Your task to perform on an android device: install app "Google Docs" Image 0: 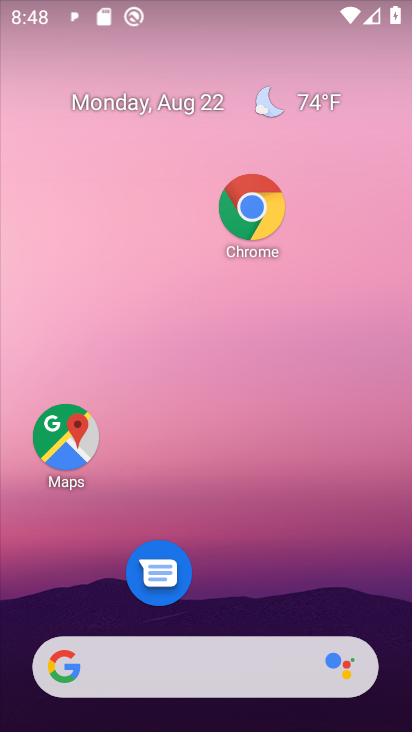
Step 0: drag from (216, 608) to (209, 69)
Your task to perform on an android device: install app "Google Docs" Image 1: 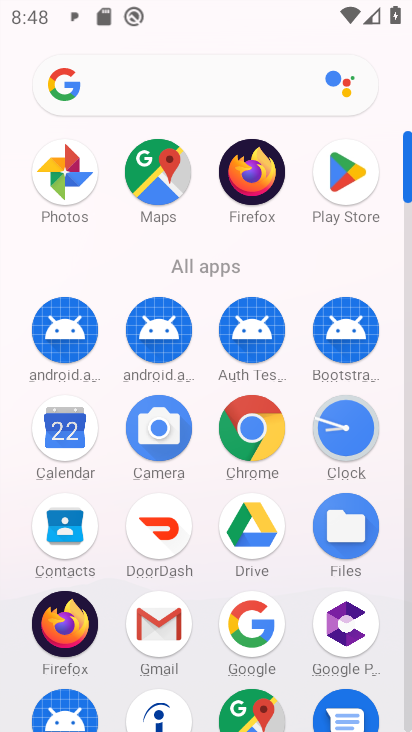
Step 1: click (340, 180)
Your task to perform on an android device: install app "Google Docs" Image 2: 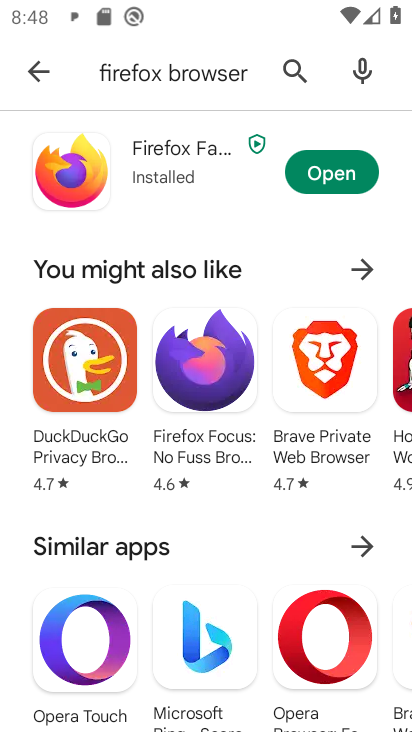
Step 2: click (189, 71)
Your task to perform on an android device: install app "Google Docs" Image 3: 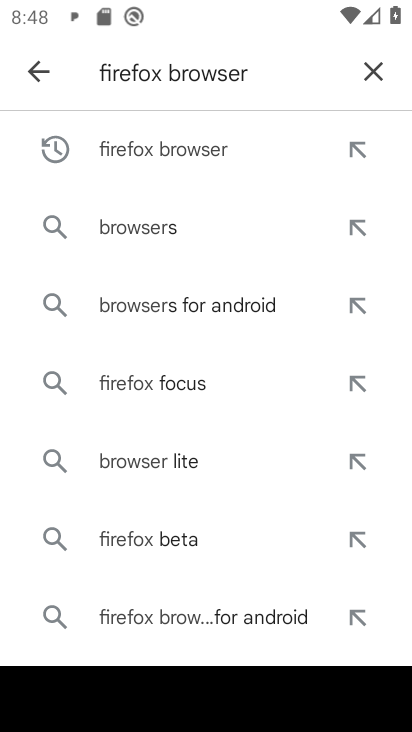
Step 3: click (378, 62)
Your task to perform on an android device: install app "Google Docs" Image 4: 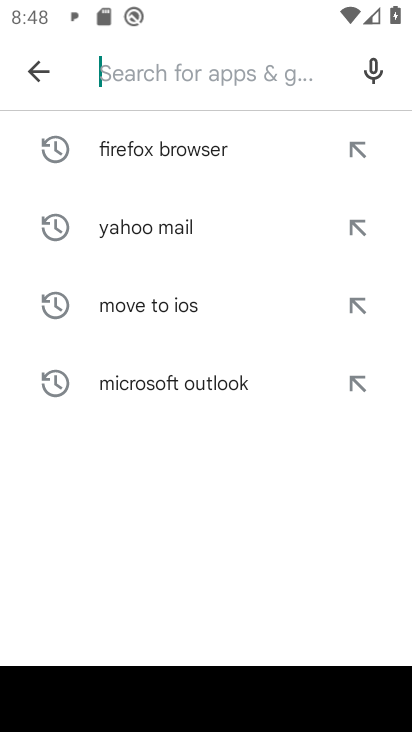
Step 4: type "googlw docs"
Your task to perform on an android device: install app "Google Docs" Image 5: 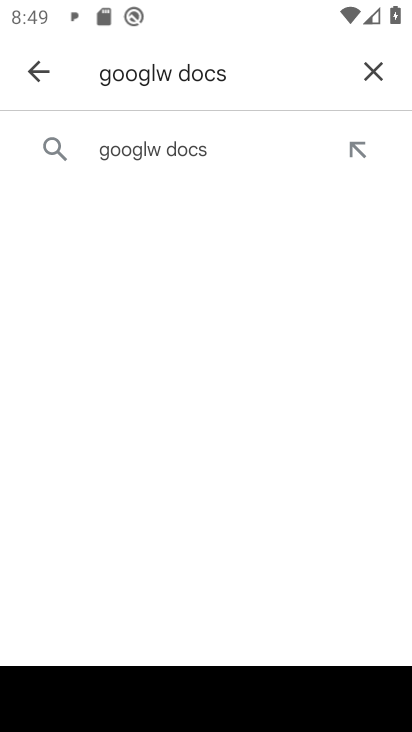
Step 5: click (148, 150)
Your task to perform on an android device: install app "Google Docs" Image 6: 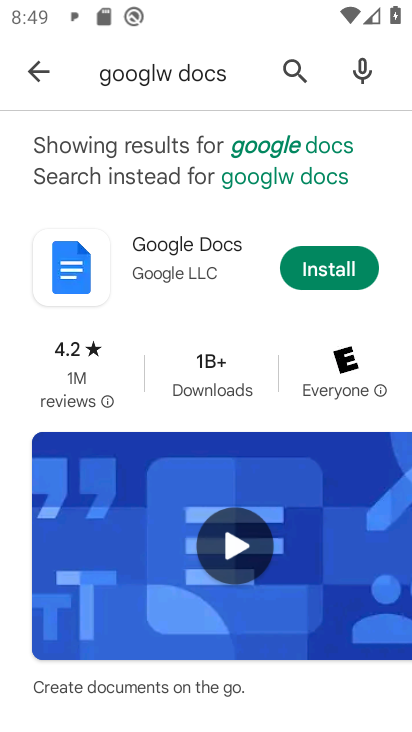
Step 6: click (337, 261)
Your task to perform on an android device: install app "Google Docs" Image 7: 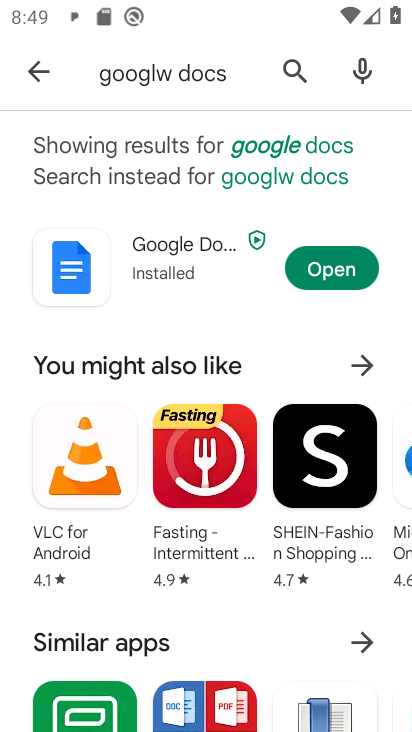
Step 7: task complete